Your task to perform on an android device: check out phone information Image 0: 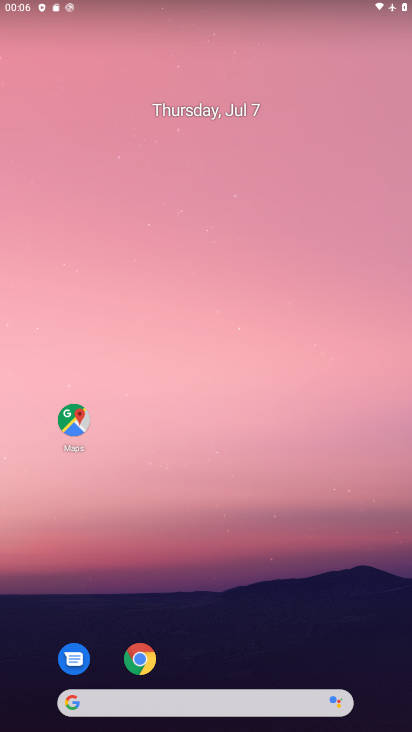
Step 0: drag from (274, 703) to (182, 144)
Your task to perform on an android device: check out phone information Image 1: 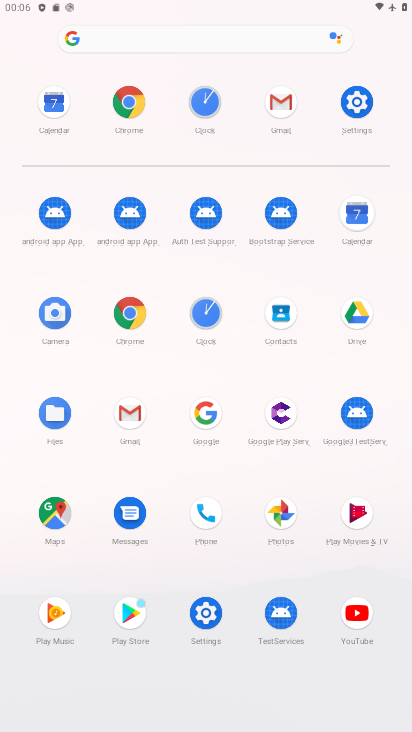
Step 1: click (347, 102)
Your task to perform on an android device: check out phone information Image 2: 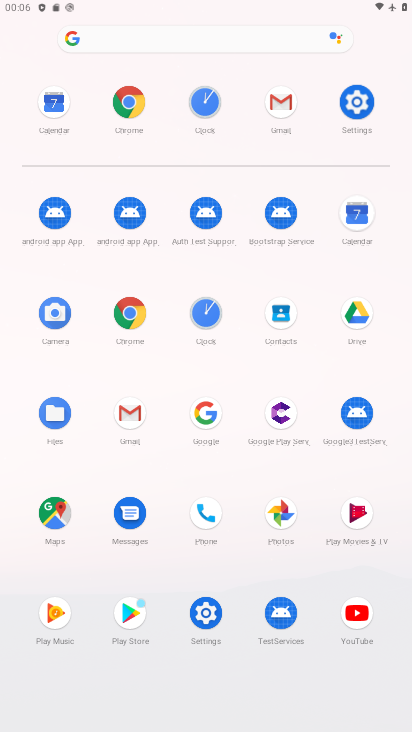
Step 2: click (350, 102)
Your task to perform on an android device: check out phone information Image 3: 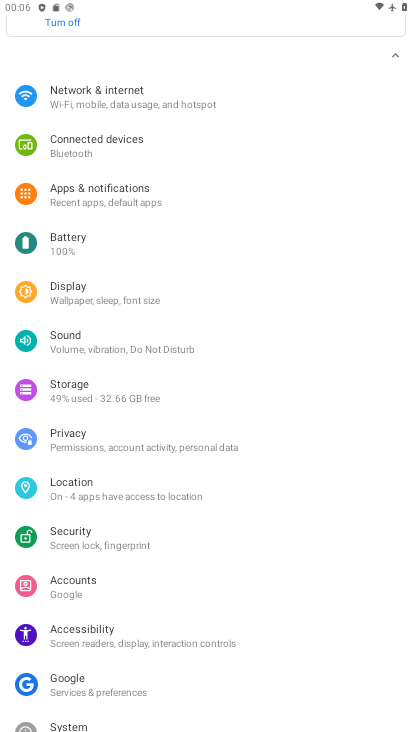
Step 3: drag from (95, 222) to (192, 582)
Your task to perform on an android device: check out phone information Image 4: 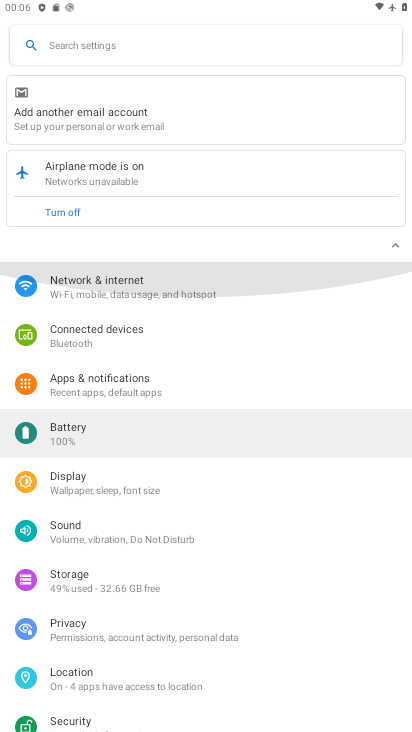
Step 4: drag from (87, 302) to (166, 555)
Your task to perform on an android device: check out phone information Image 5: 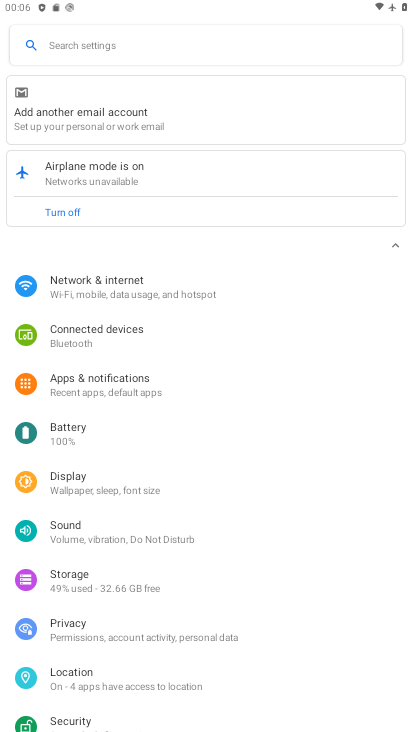
Step 5: drag from (101, 553) to (119, 233)
Your task to perform on an android device: check out phone information Image 6: 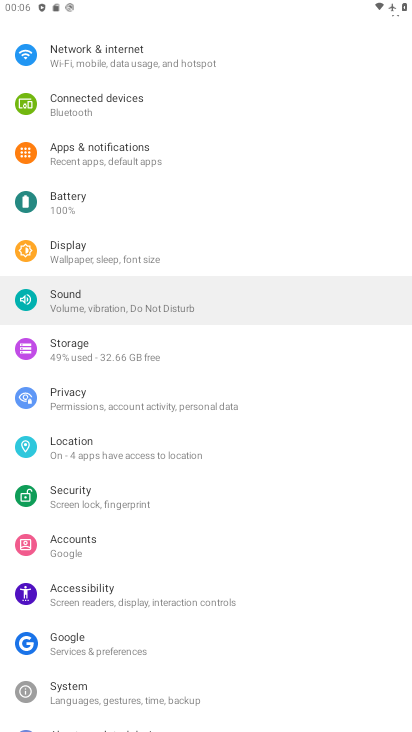
Step 6: drag from (123, 474) to (122, 342)
Your task to perform on an android device: check out phone information Image 7: 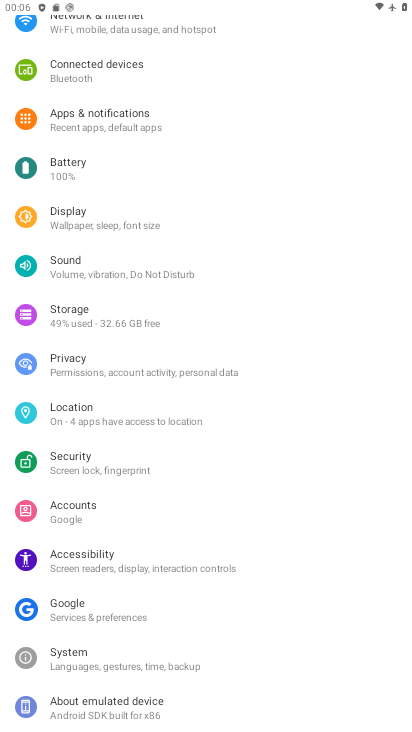
Step 7: click (93, 416)
Your task to perform on an android device: check out phone information Image 8: 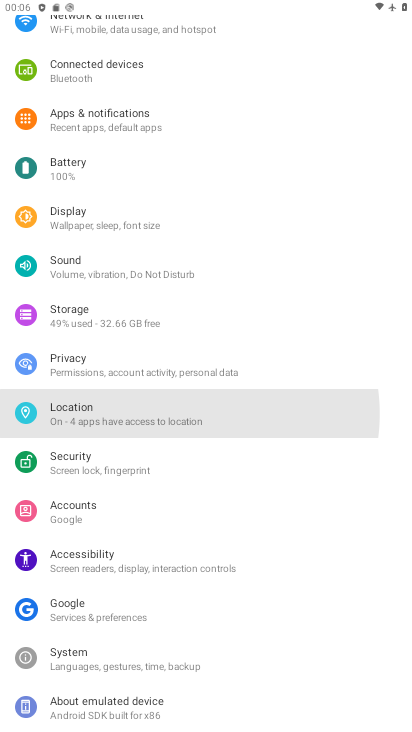
Step 8: click (95, 418)
Your task to perform on an android device: check out phone information Image 9: 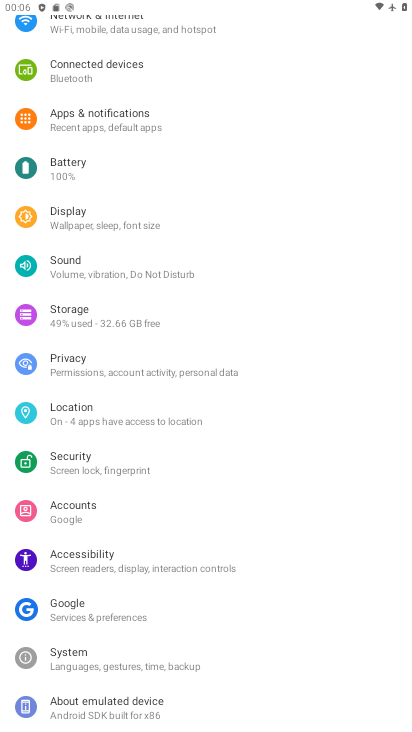
Step 9: click (100, 423)
Your task to perform on an android device: check out phone information Image 10: 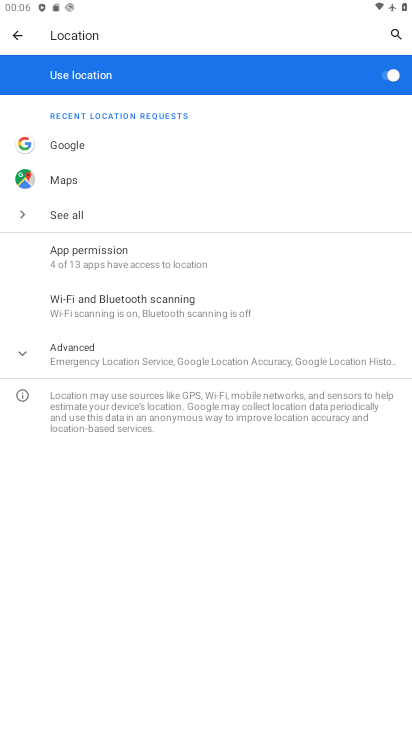
Step 10: click (79, 247)
Your task to perform on an android device: check out phone information Image 11: 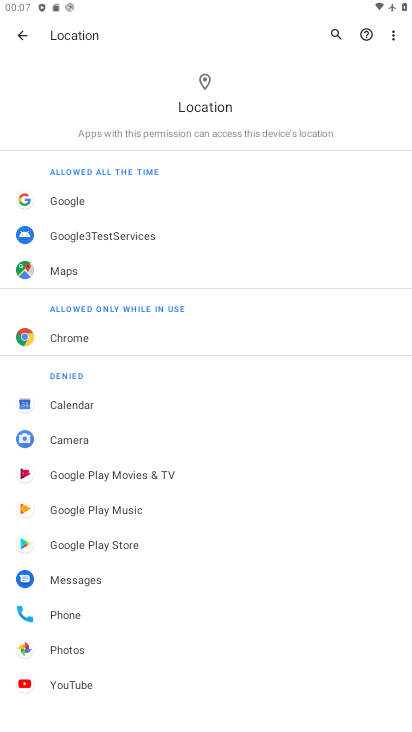
Step 11: click (72, 623)
Your task to perform on an android device: check out phone information Image 12: 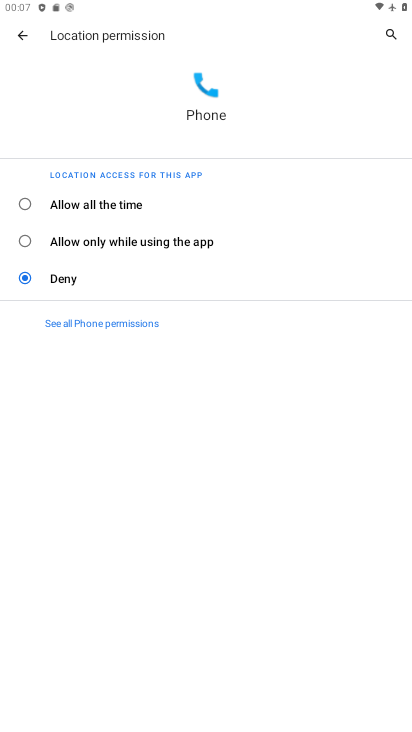
Step 12: click (69, 620)
Your task to perform on an android device: check out phone information Image 13: 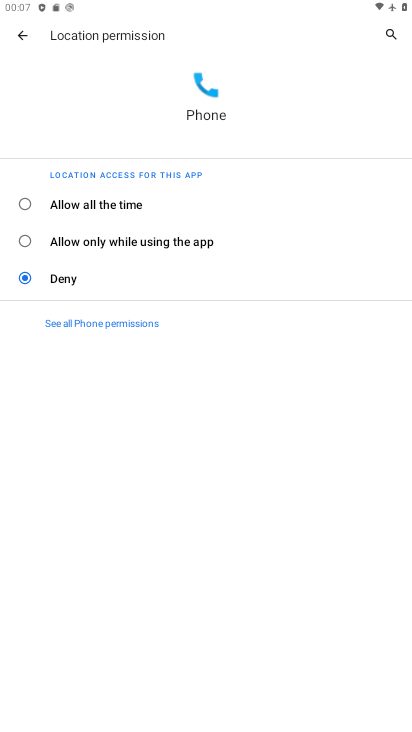
Step 13: task complete